Your task to perform on an android device: turn on bluetooth scan Image 0: 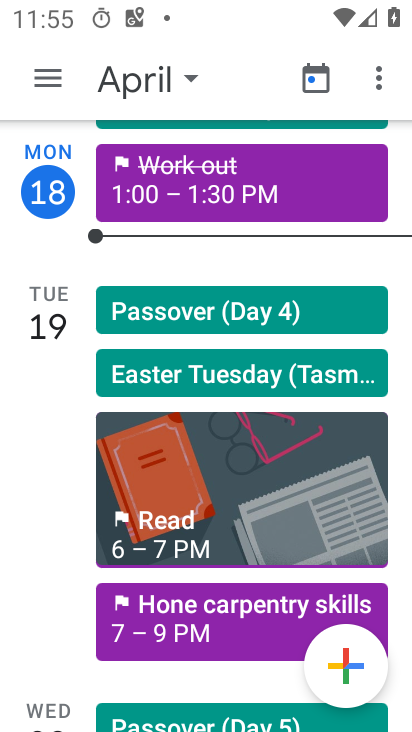
Step 0: press home button
Your task to perform on an android device: turn on bluetooth scan Image 1: 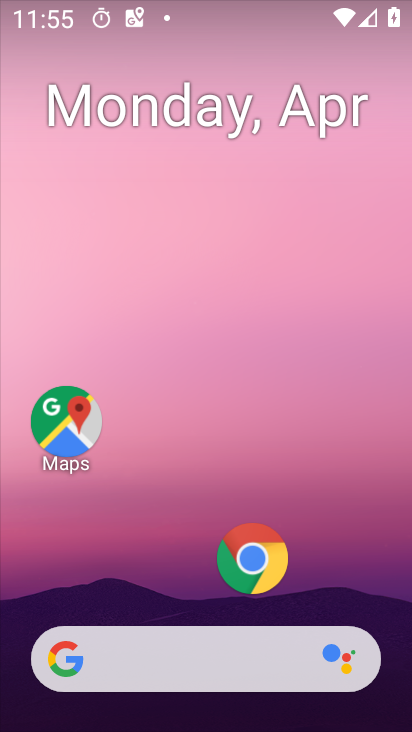
Step 1: drag from (195, 609) to (261, 183)
Your task to perform on an android device: turn on bluetooth scan Image 2: 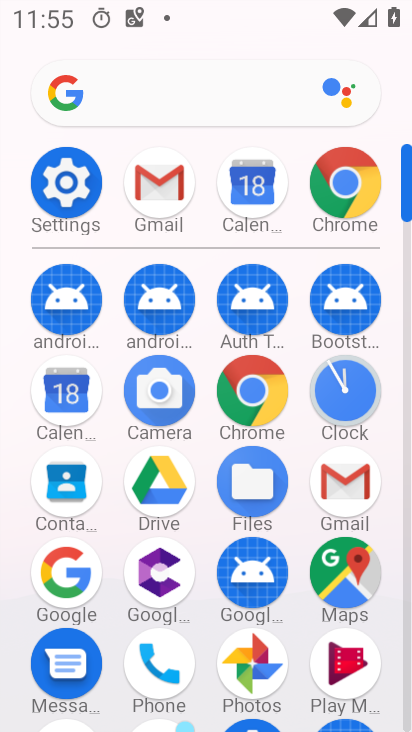
Step 2: drag from (207, 632) to (244, 280)
Your task to perform on an android device: turn on bluetooth scan Image 3: 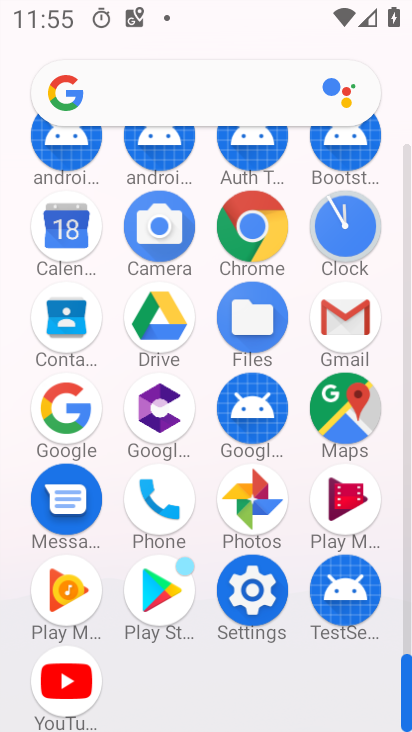
Step 3: click (250, 573)
Your task to perform on an android device: turn on bluetooth scan Image 4: 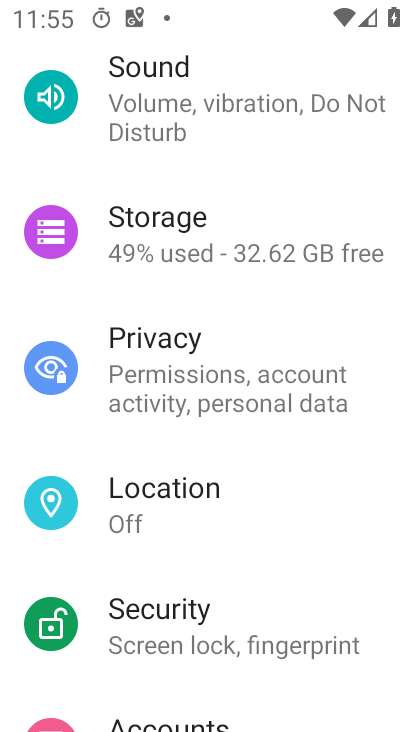
Step 4: click (138, 497)
Your task to perform on an android device: turn on bluetooth scan Image 5: 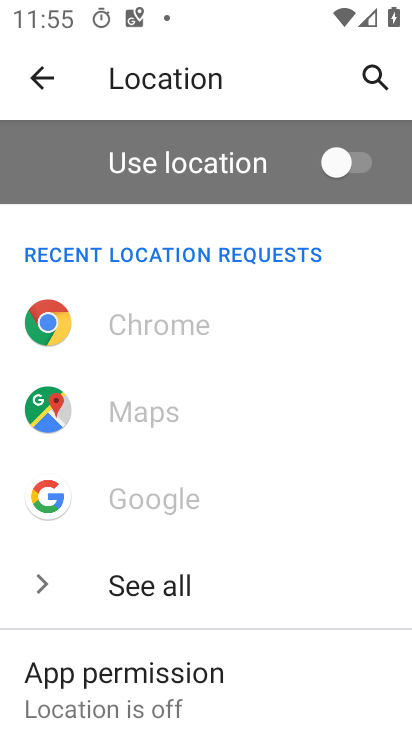
Step 5: drag from (164, 620) to (190, 283)
Your task to perform on an android device: turn on bluetooth scan Image 6: 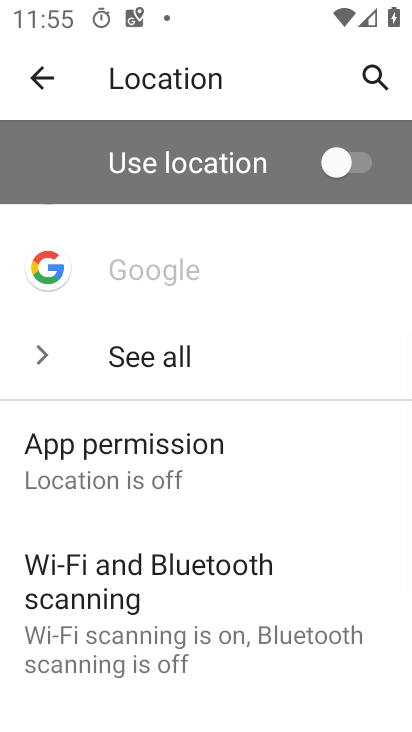
Step 6: click (157, 641)
Your task to perform on an android device: turn on bluetooth scan Image 7: 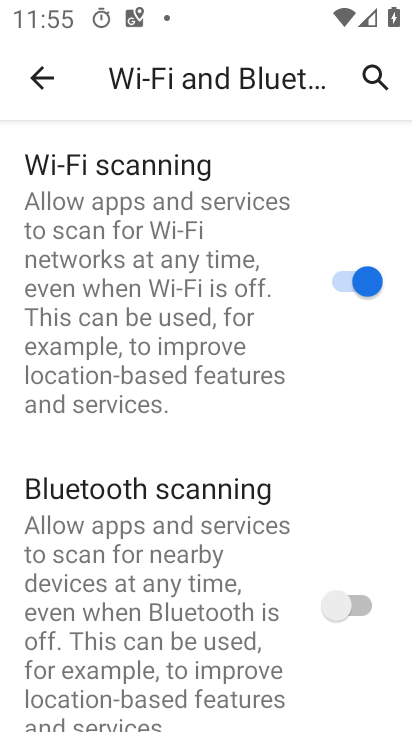
Step 7: click (340, 611)
Your task to perform on an android device: turn on bluetooth scan Image 8: 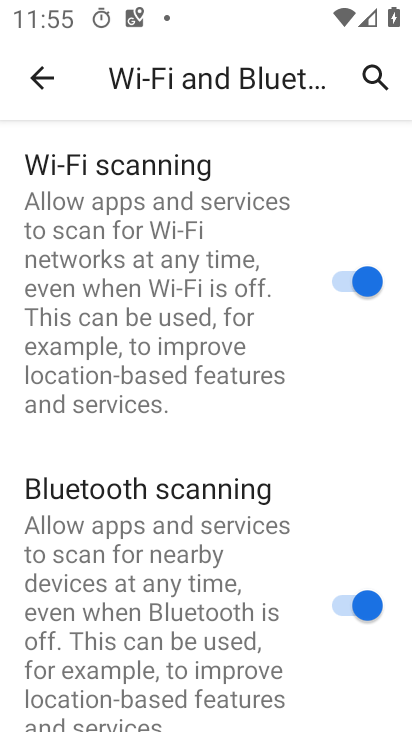
Step 8: task complete